Your task to perform on an android device: Open CNN.com Image 0: 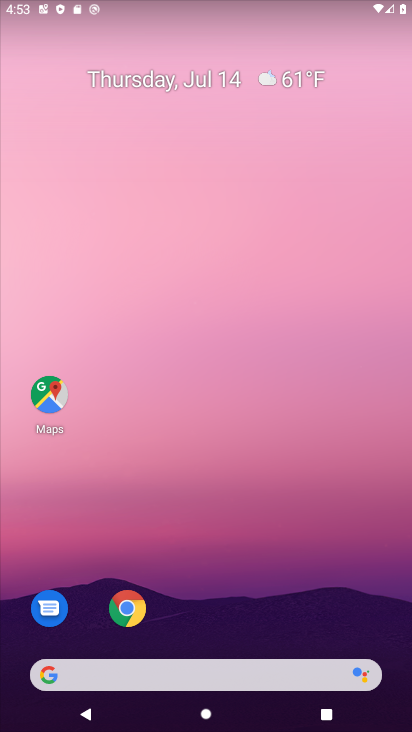
Step 0: drag from (305, 604) to (204, 130)
Your task to perform on an android device: Open CNN.com Image 1: 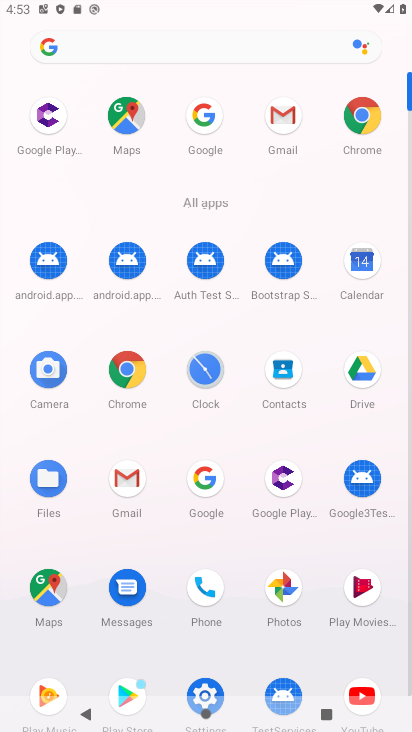
Step 1: click (360, 107)
Your task to perform on an android device: Open CNN.com Image 2: 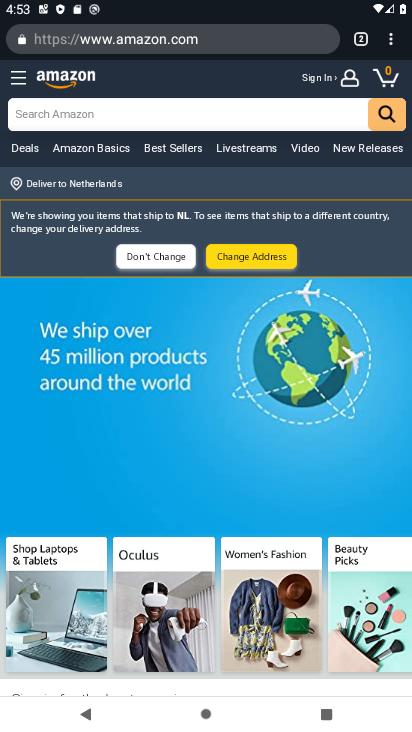
Step 2: click (273, 46)
Your task to perform on an android device: Open CNN.com Image 3: 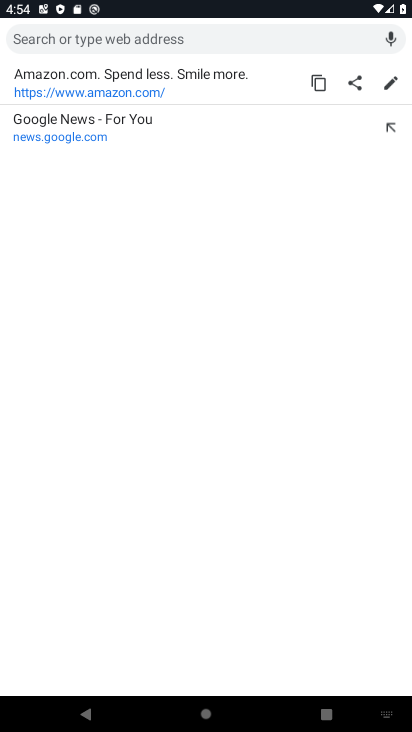
Step 3: type "cnn.com"
Your task to perform on an android device: Open CNN.com Image 4: 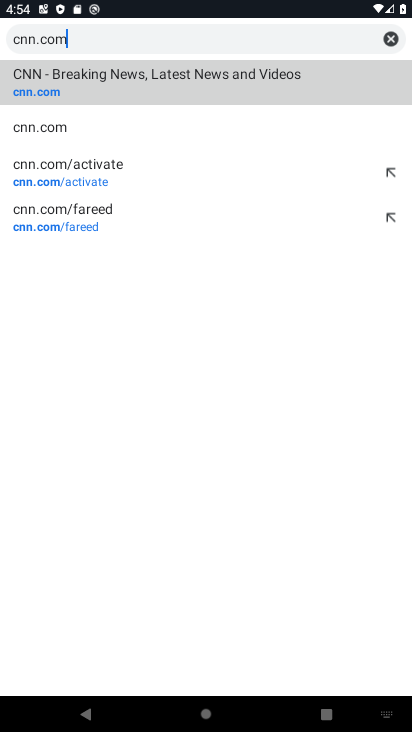
Step 4: click (38, 86)
Your task to perform on an android device: Open CNN.com Image 5: 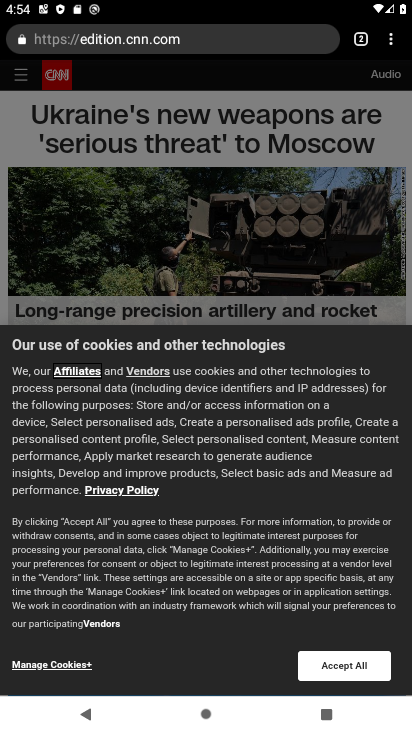
Step 5: task complete